Your task to perform on an android device: add a contact Image 0: 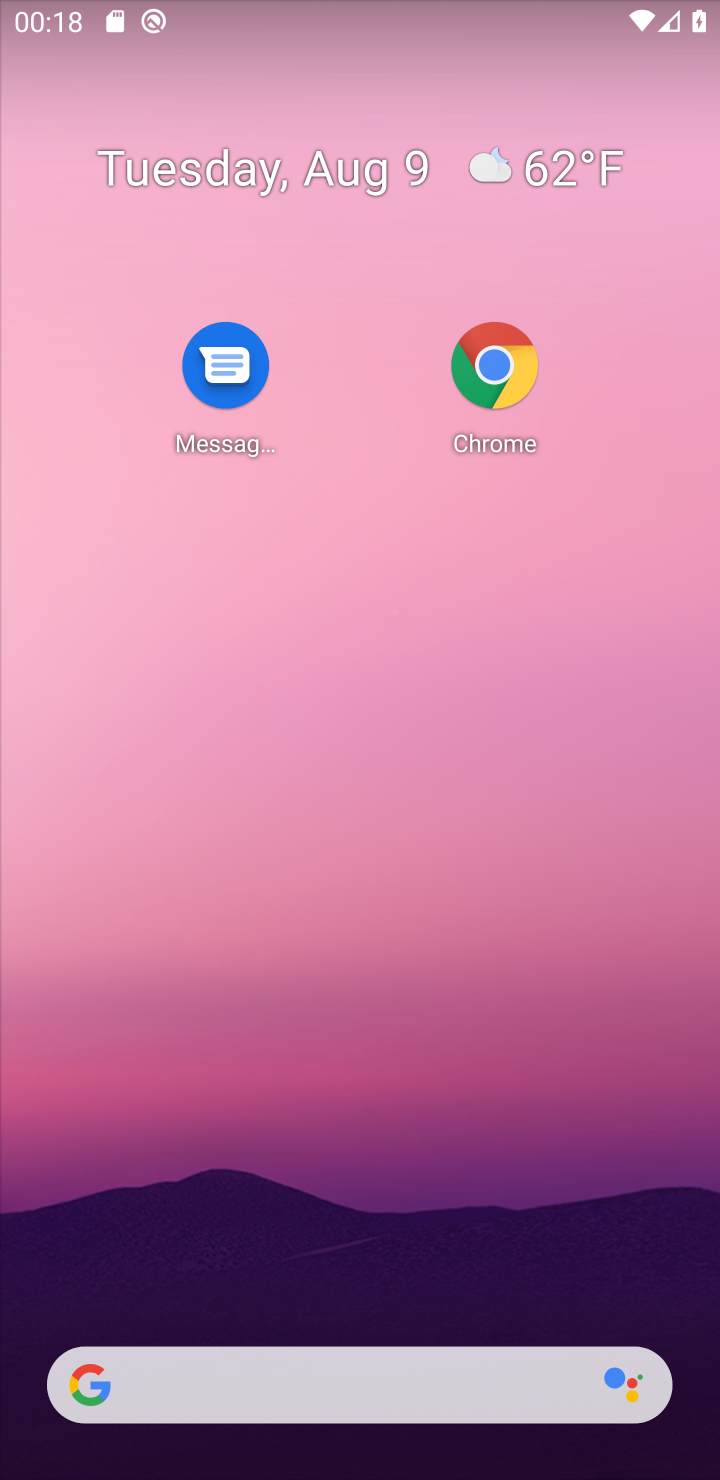
Step 0: drag from (275, 1300) to (285, 352)
Your task to perform on an android device: add a contact Image 1: 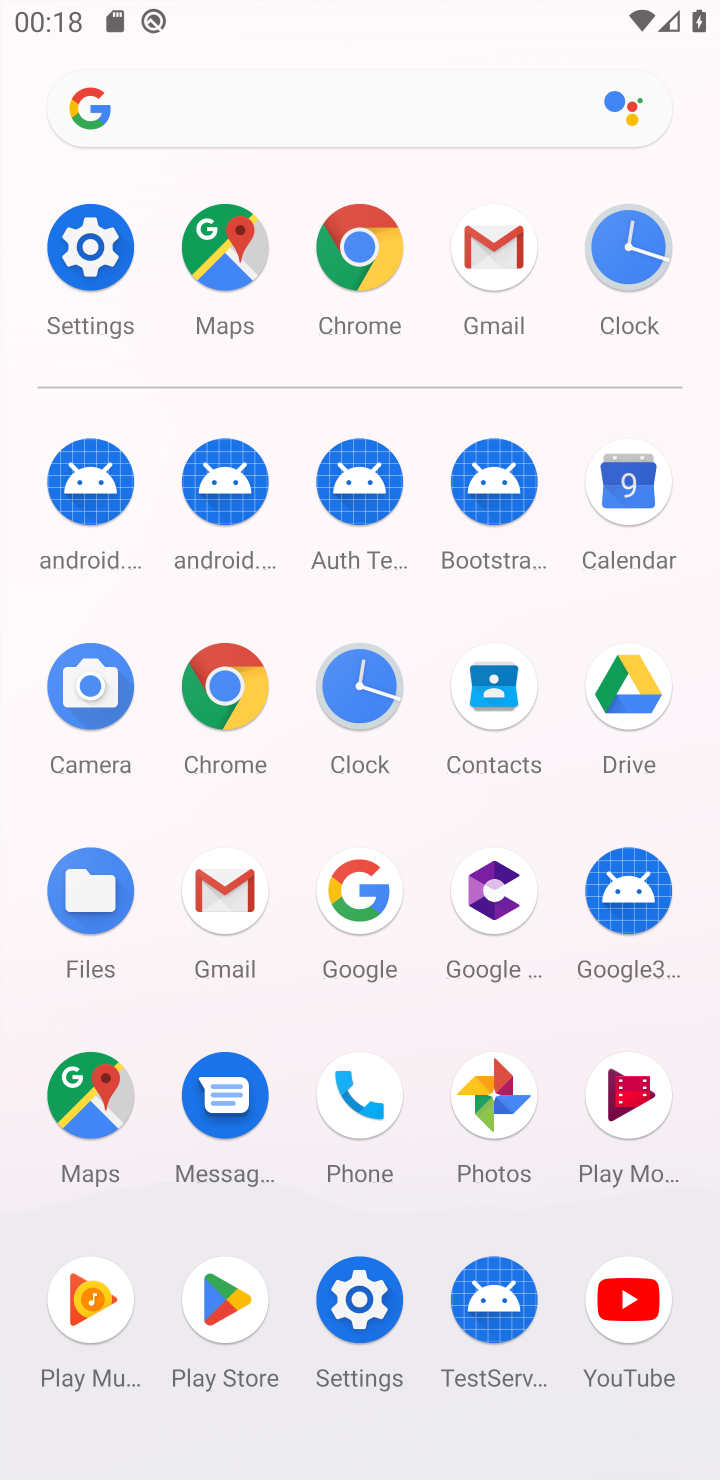
Step 1: click (480, 680)
Your task to perform on an android device: add a contact Image 2: 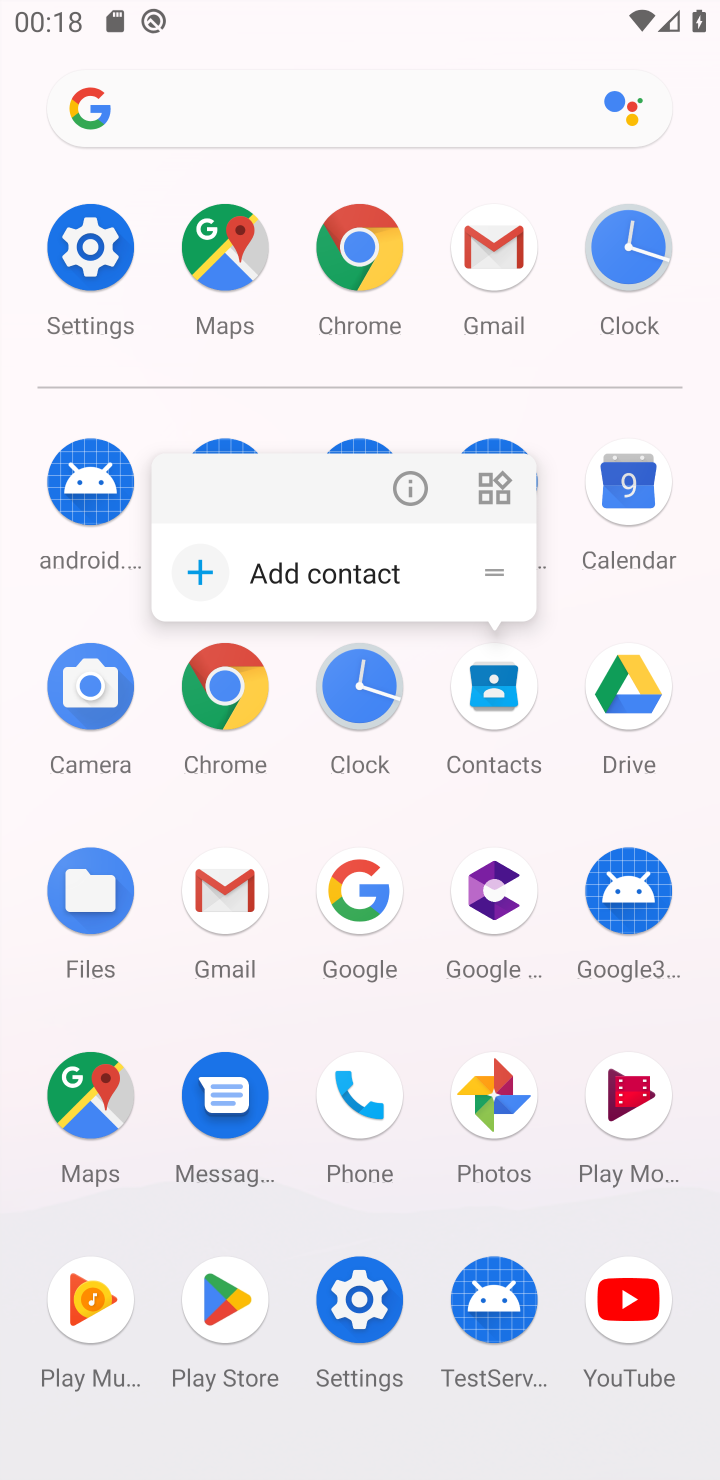
Step 2: click (480, 680)
Your task to perform on an android device: add a contact Image 3: 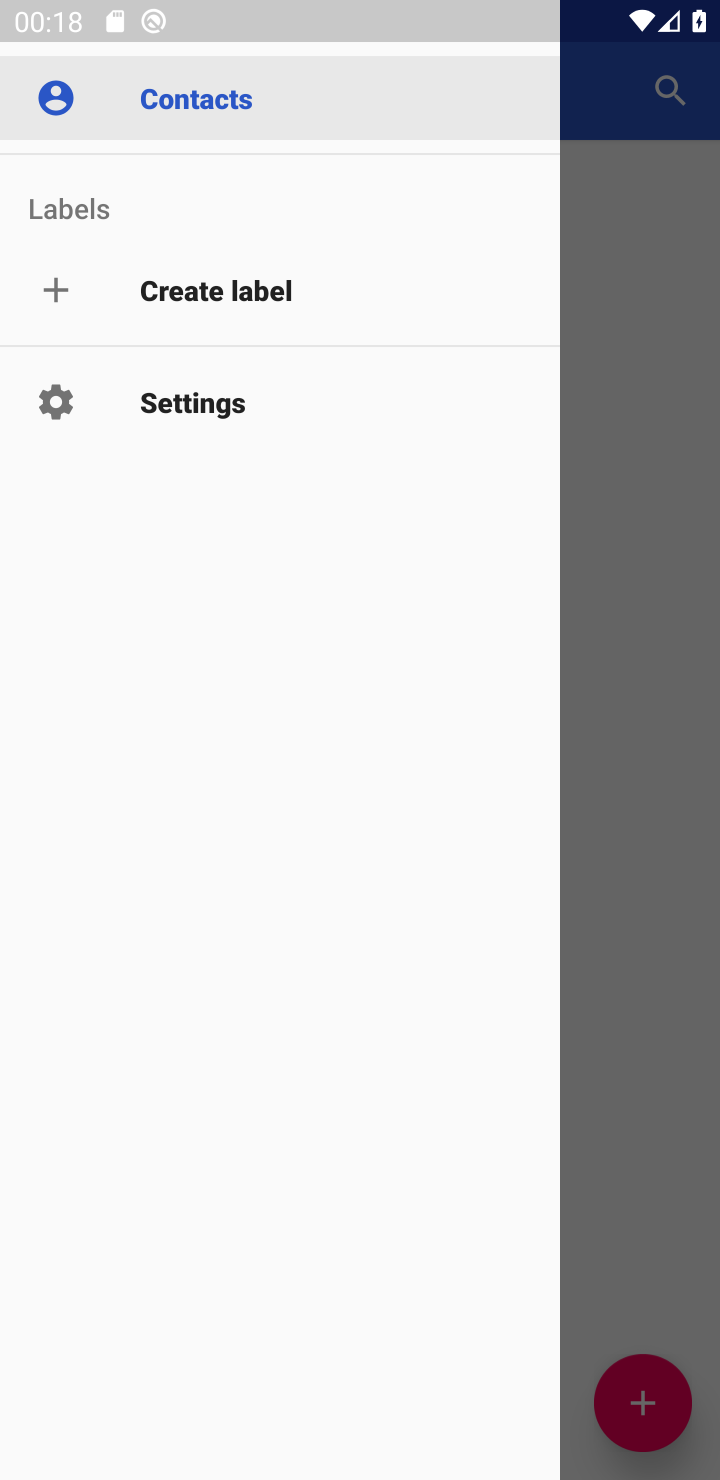
Step 3: click (667, 408)
Your task to perform on an android device: add a contact Image 4: 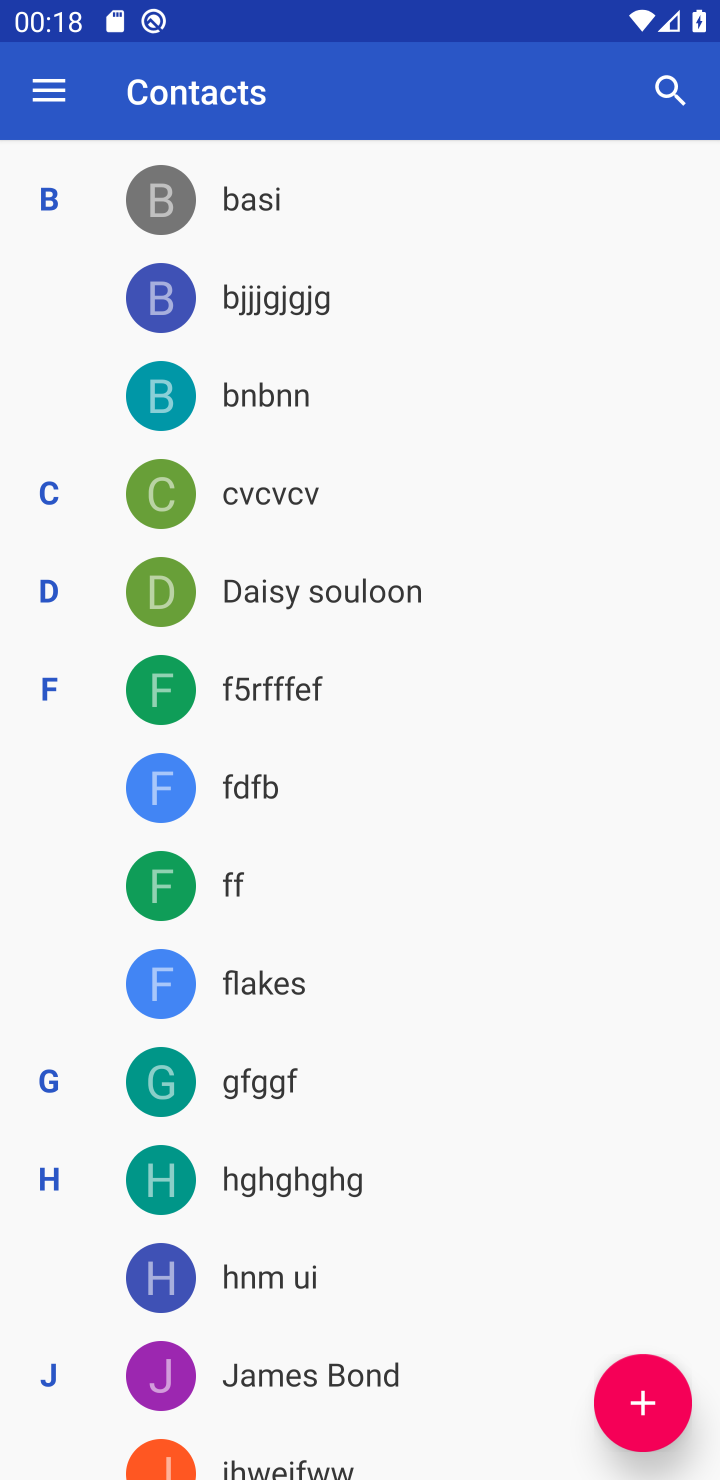
Step 4: click (621, 1347)
Your task to perform on an android device: add a contact Image 5: 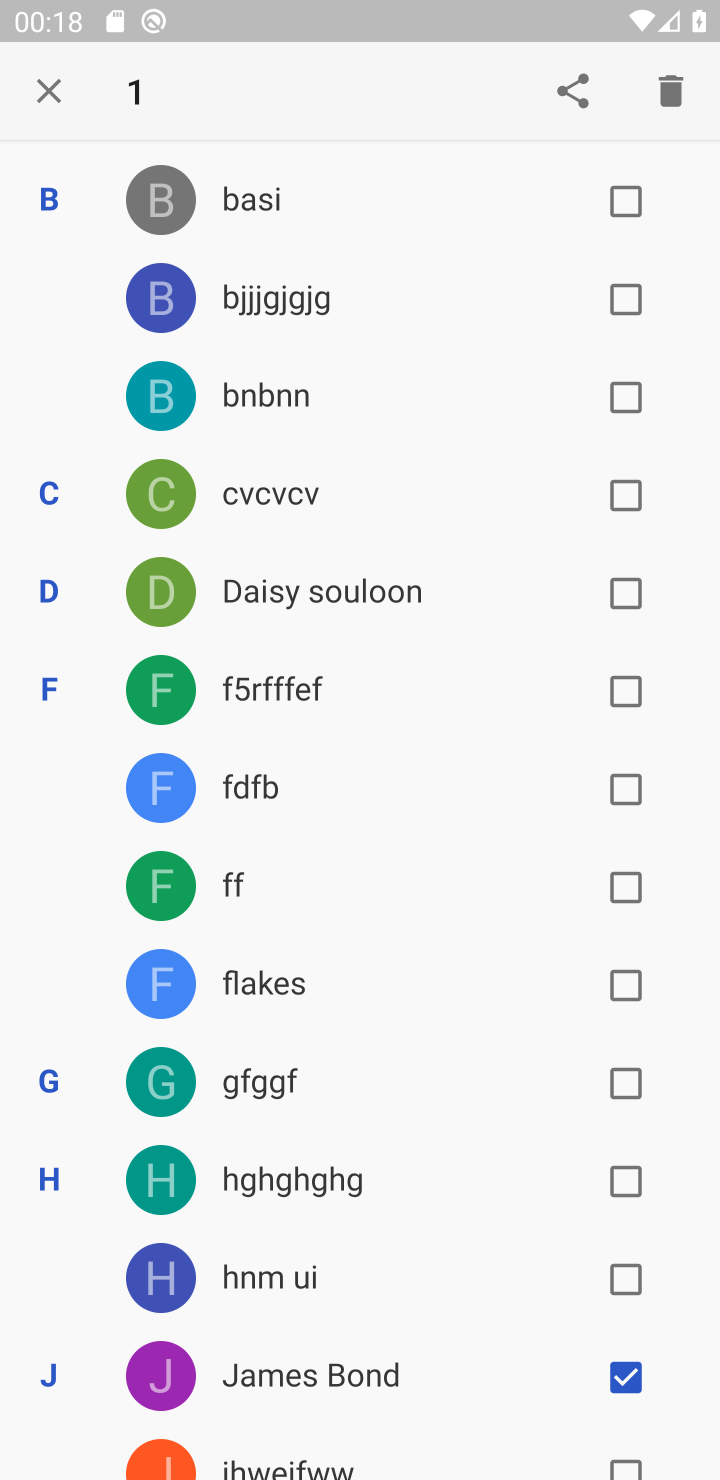
Step 5: click (66, 75)
Your task to perform on an android device: add a contact Image 6: 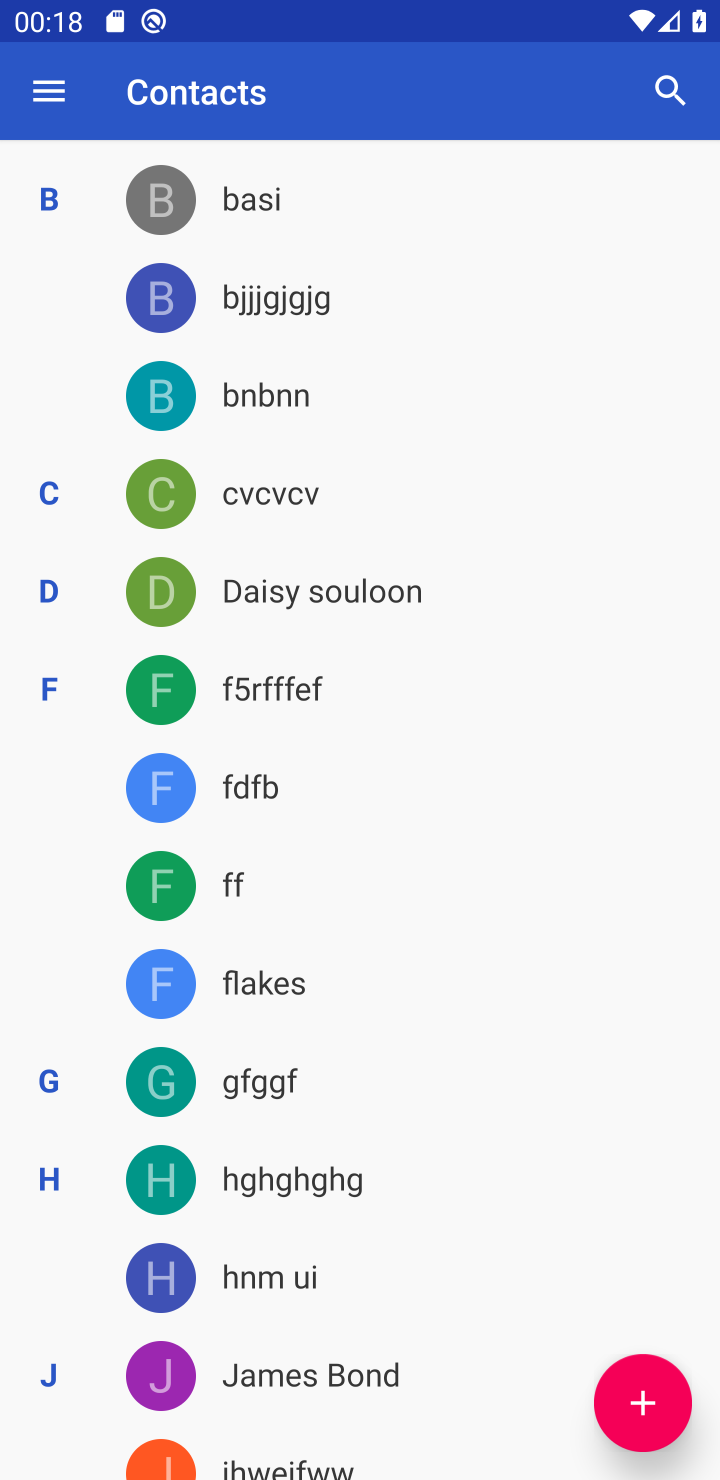
Step 6: click (625, 1391)
Your task to perform on an android device: add a contact Image 7: 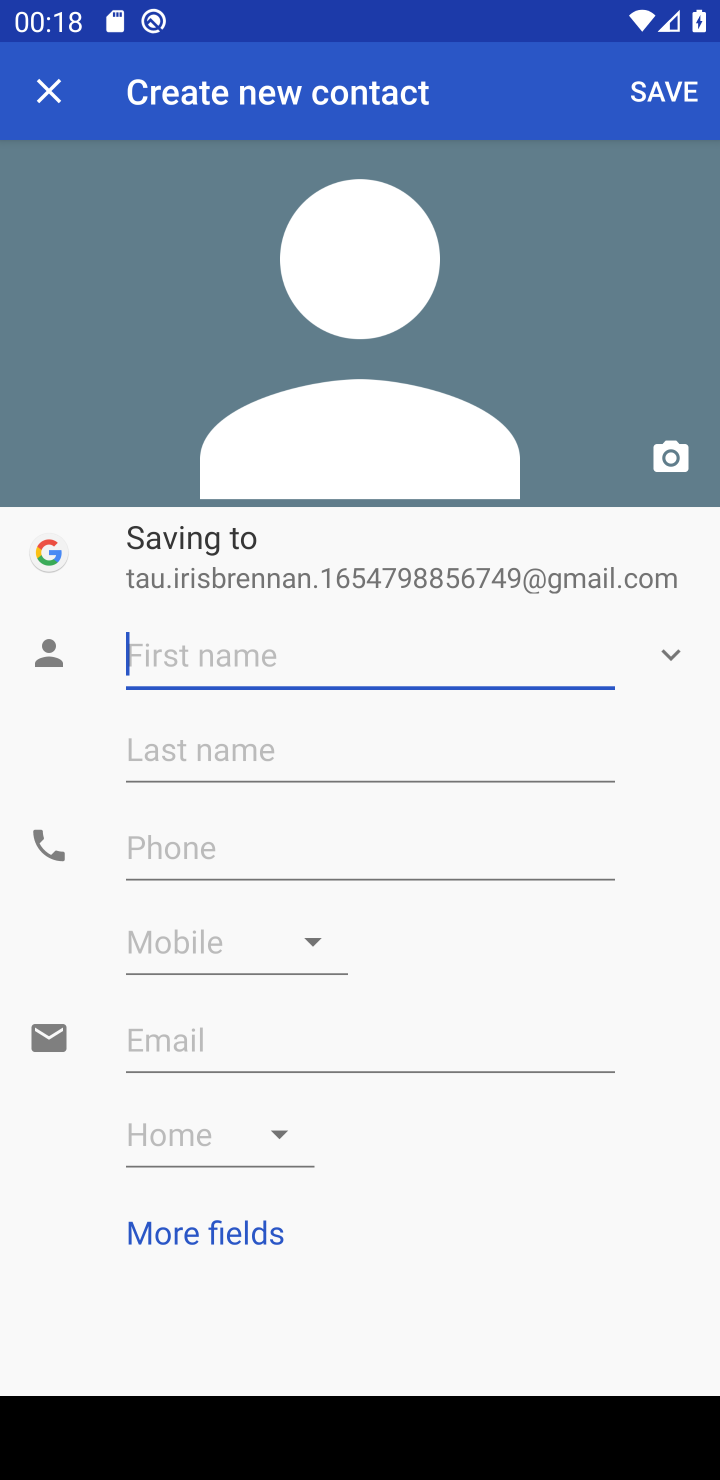
Step 7: click (237, 657)
Your task to perform on an android device: add a contact Image 8: 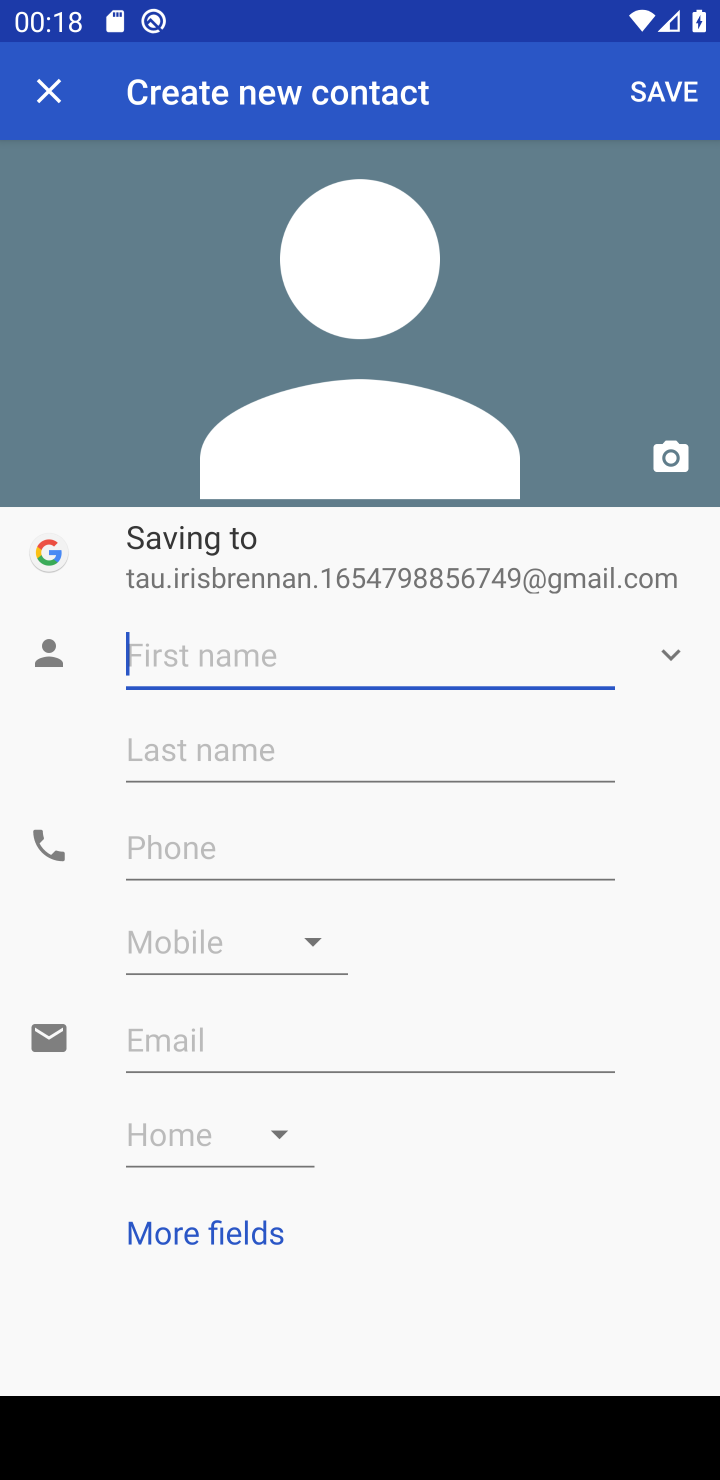
Step 8: type "anuj"
Your task to perform on an android device: add a contact Image 9: 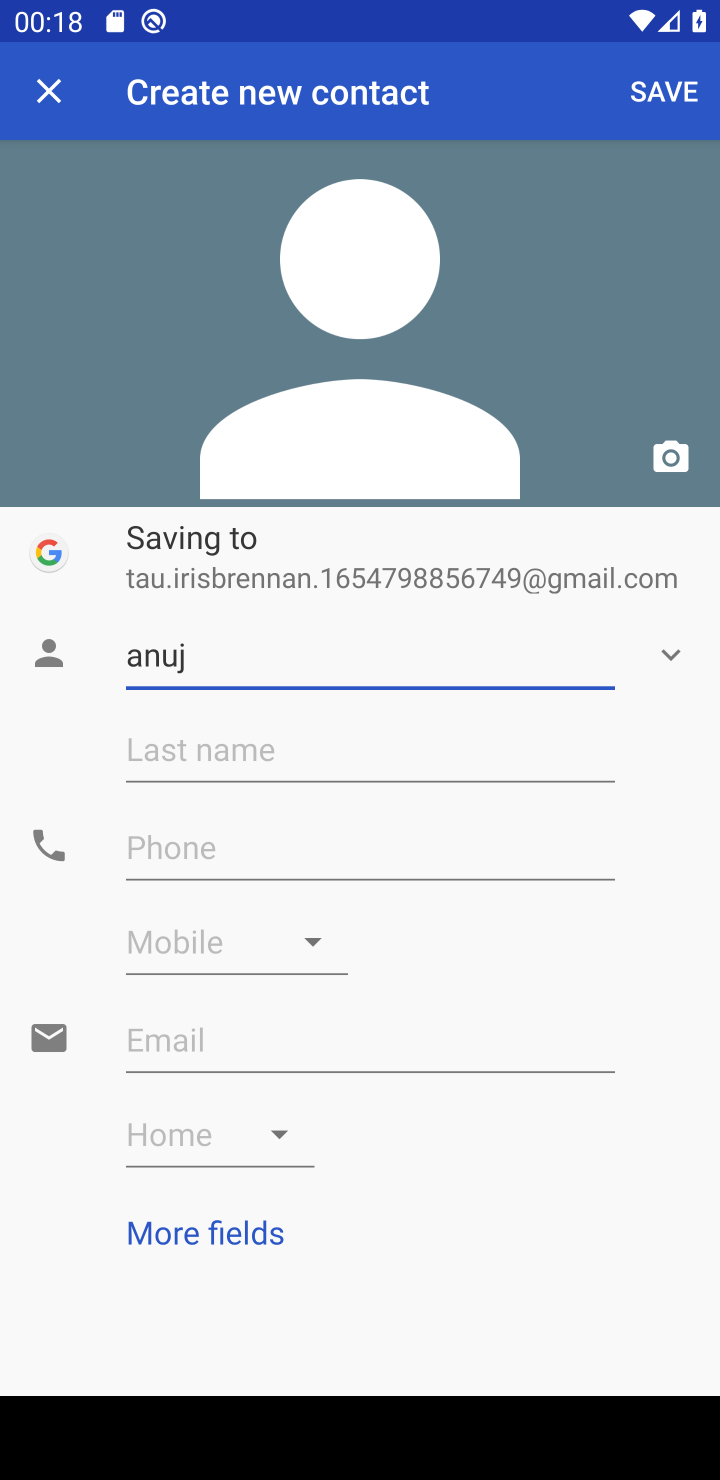
Step 9: click (246, 854)
Your task to perform on an android device: add a contact Image 10: 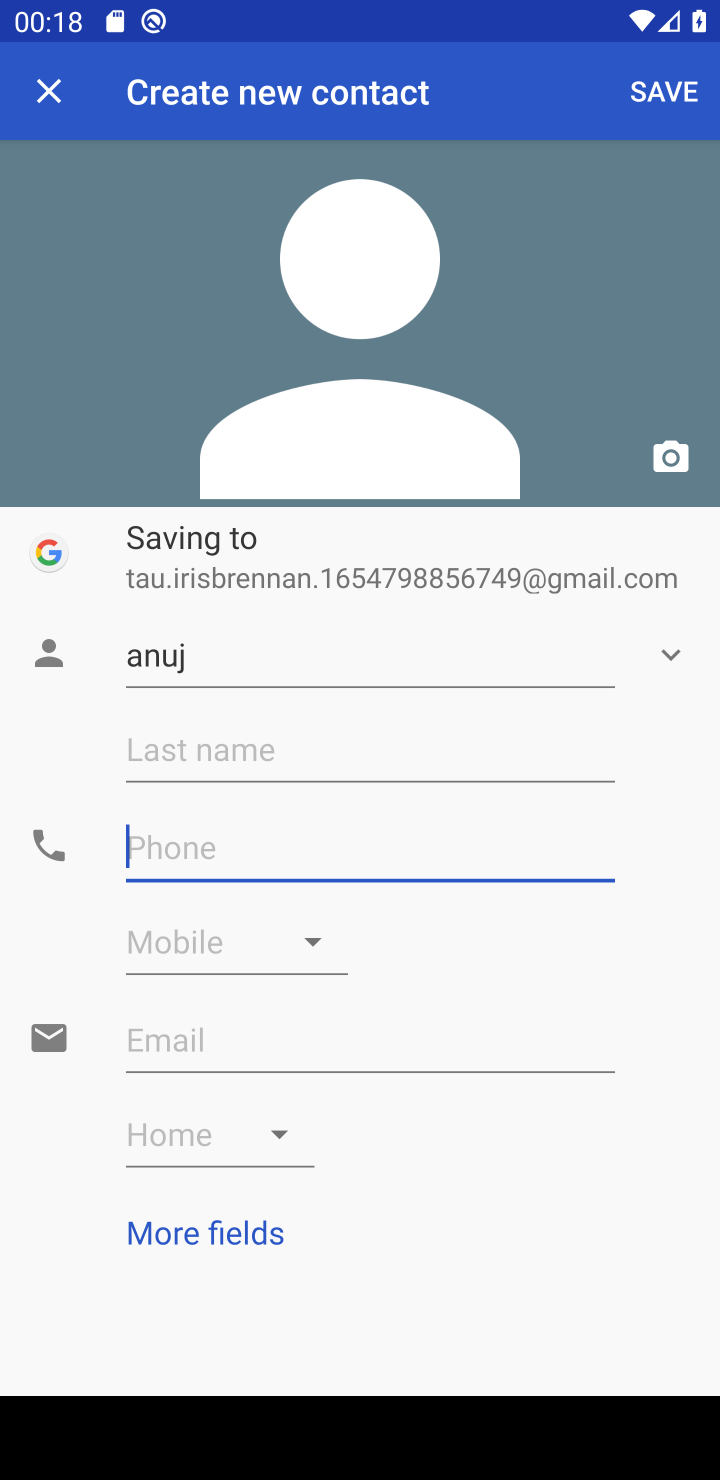
Step 10: type "87878778 "
Your task to perform on an android device: add a contact Image 11: 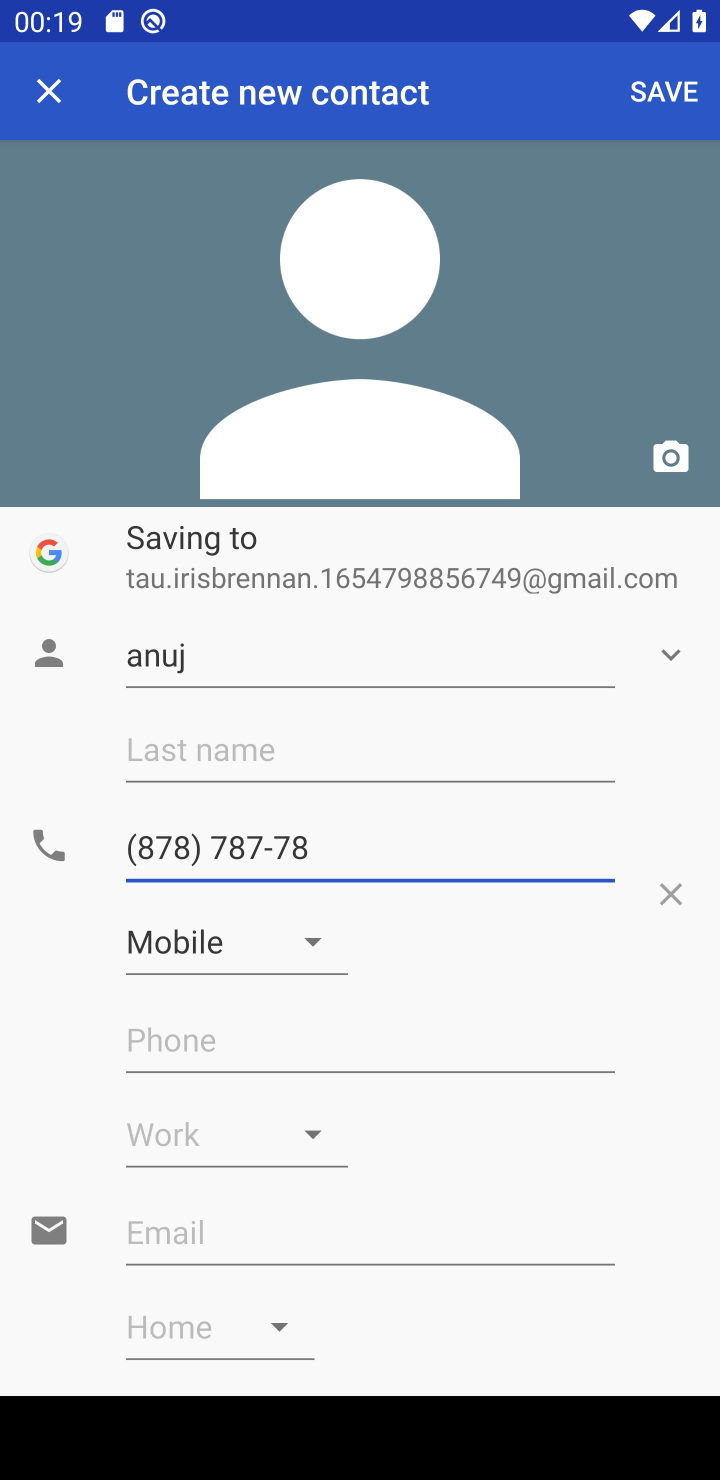
Step 11: task complete